Your task to perform on an android device: change the clock display to digital Image 0: 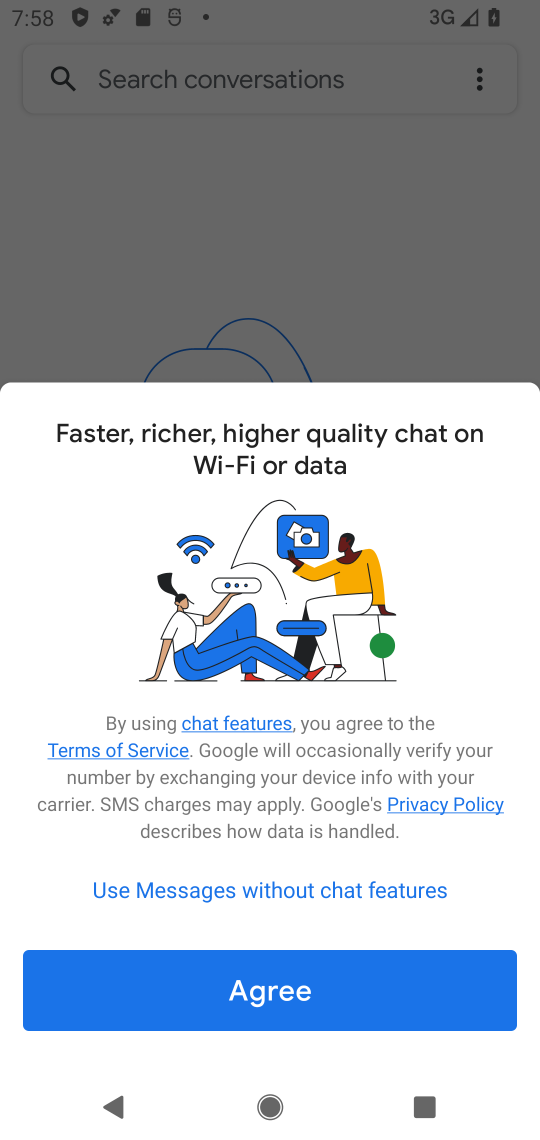
Step 0: press home button
Your task to perform on an android device: change the clock display to digital Image 1: 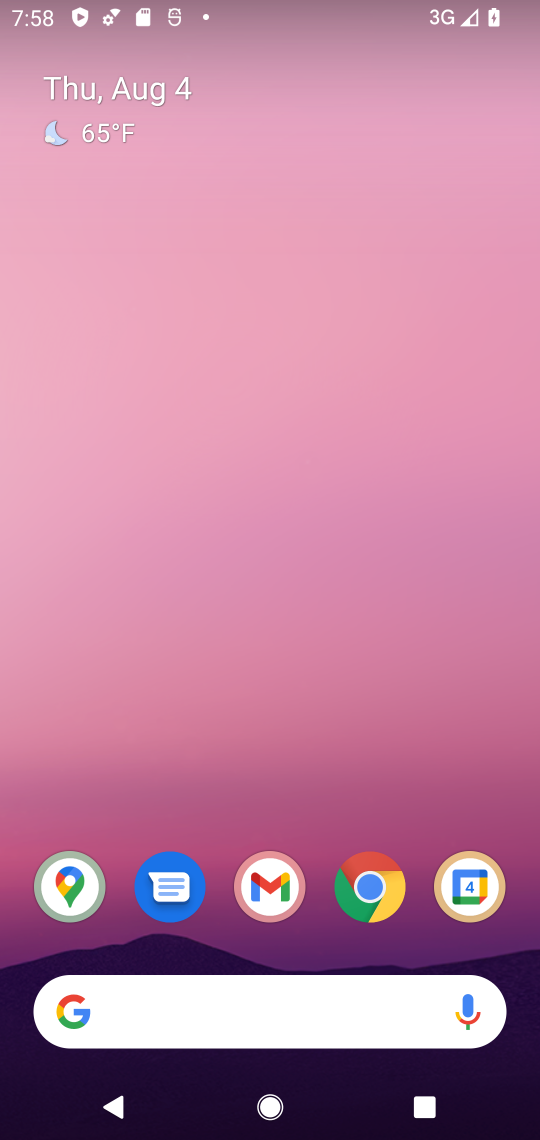
Step 1: drag from (244, 989) to (249, 617)
Your task to perform on an android device: change the clock display to digital Image 2: 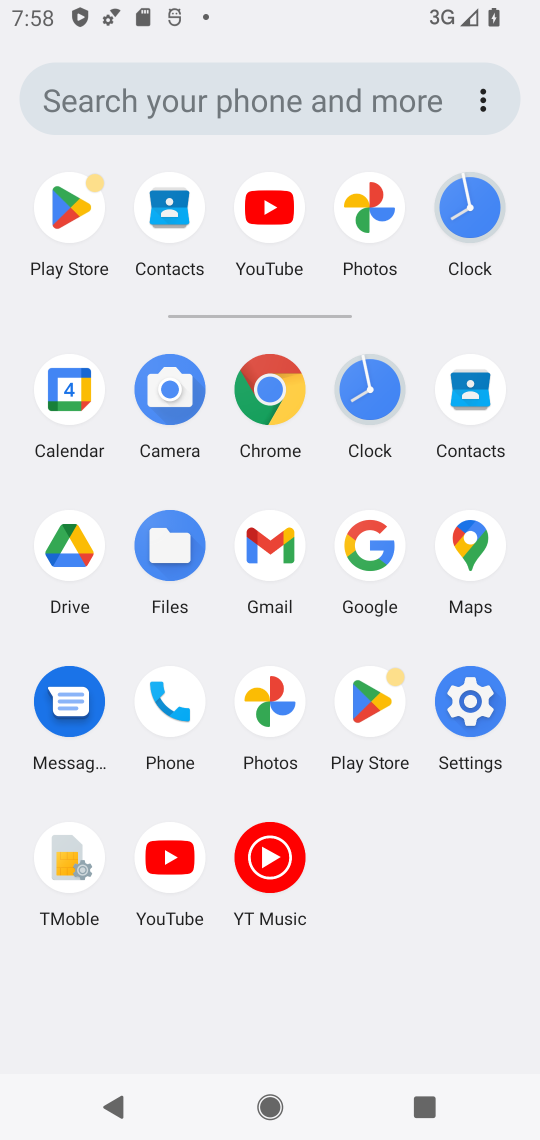
Step 2: click (466, 185)
Your task to perform on an android device: change the clock display to digital Image 3: 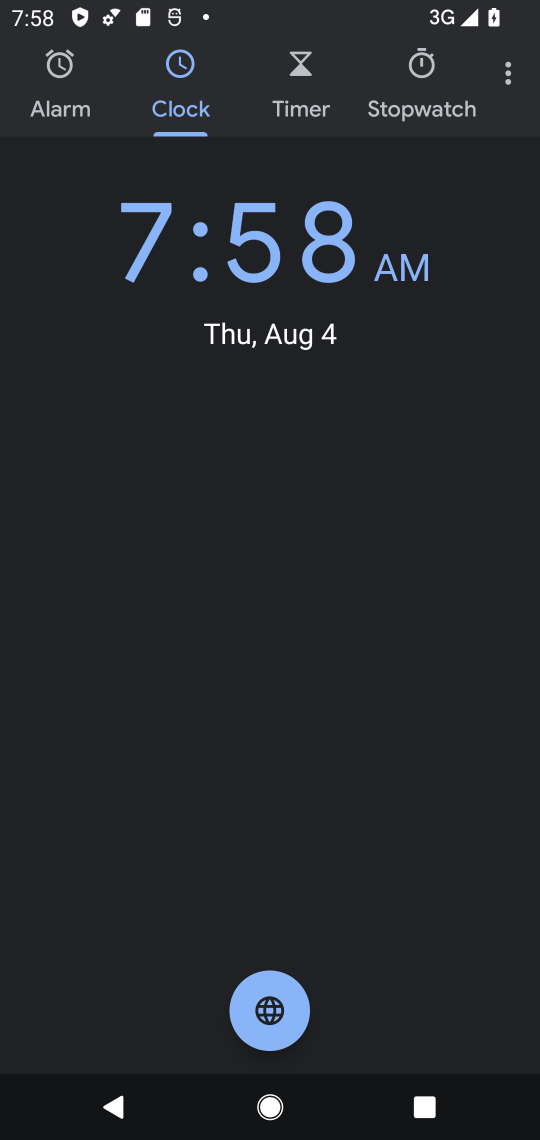
Step 3: click (511, 85)
Your task to perform on an android device: change the clock display to digital Image 4: 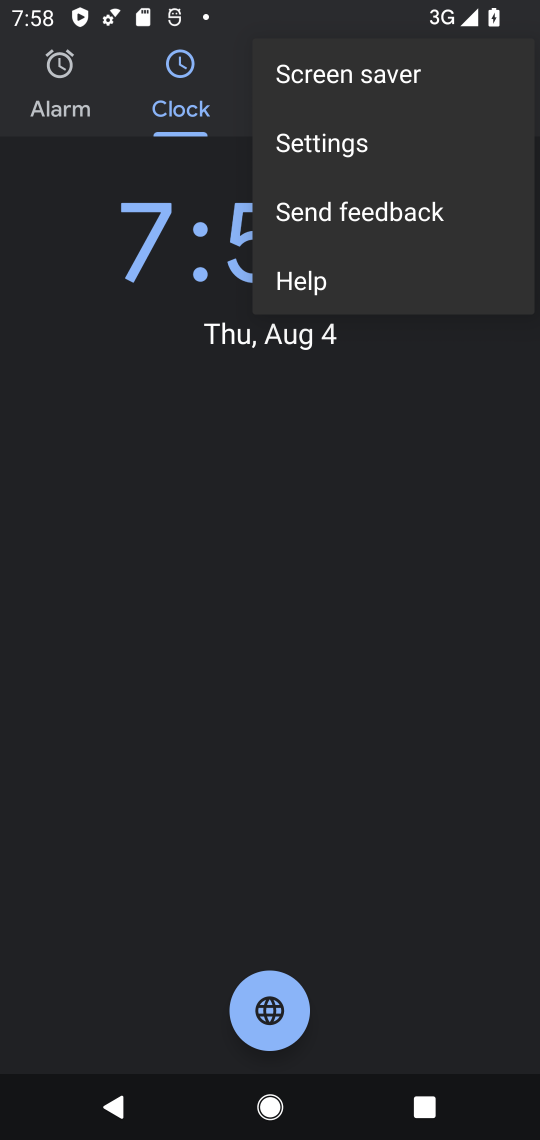
Step 4: click (365, 140)
Your task to perform on an android device: change the clock display to digital Image 5: 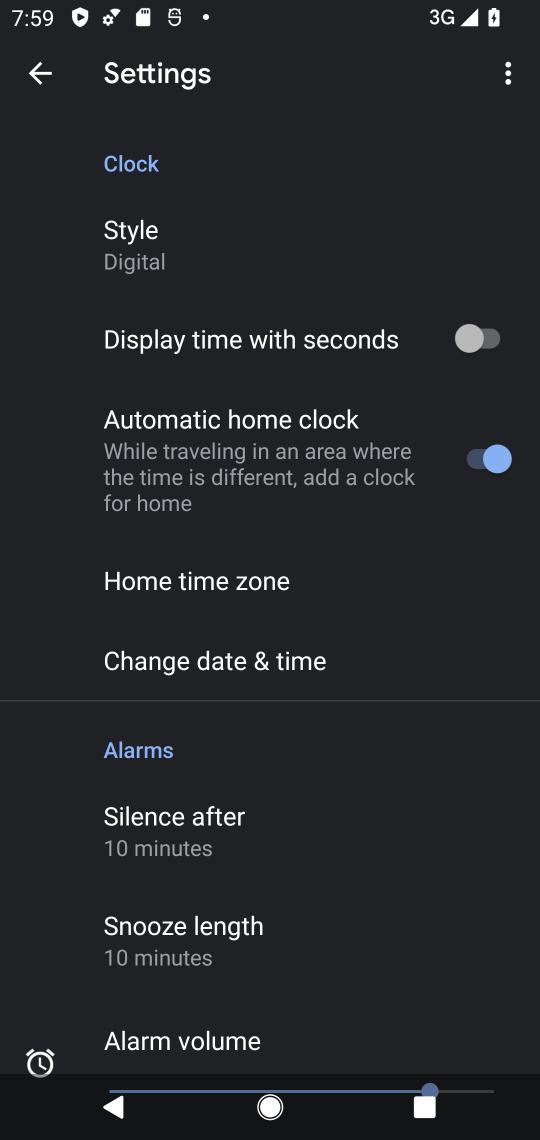
Step 5: click (149, 245)
Your task to perform on an android device: change the clock display to digital Image 6: 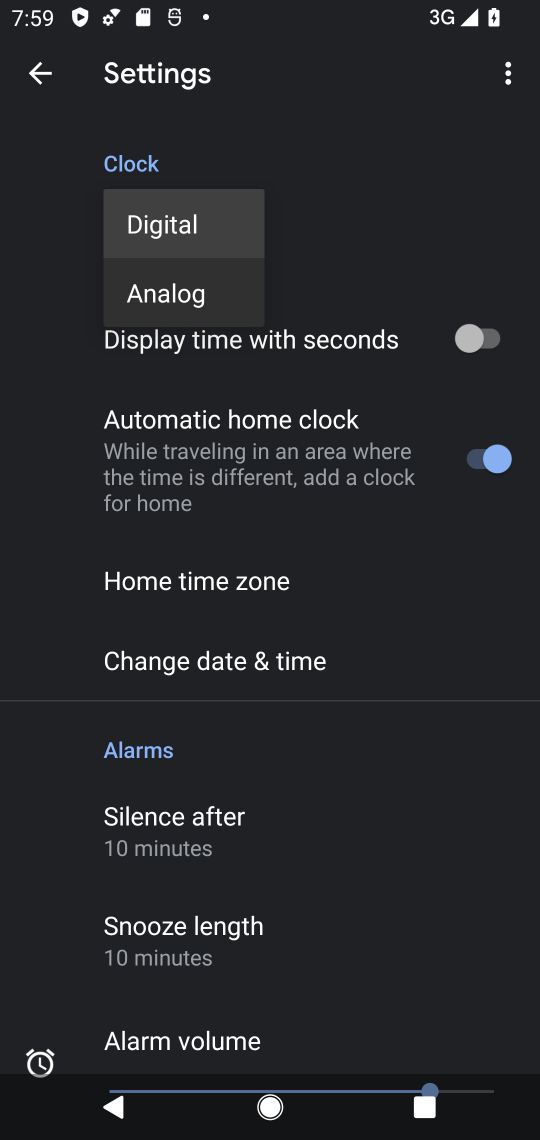
Step 6: click (155, 222)
Your task to perform on an android device: change the clock display to digital Image 7: 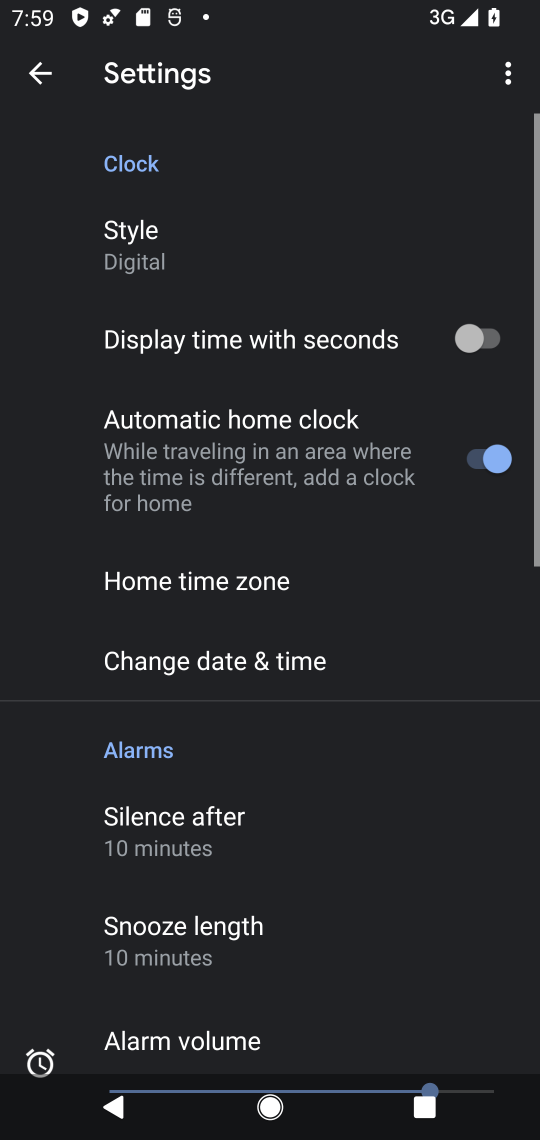
Step 7: task complete